Your task to perform on an android device: open app "Spotify" (install if not already installed) Image 0: 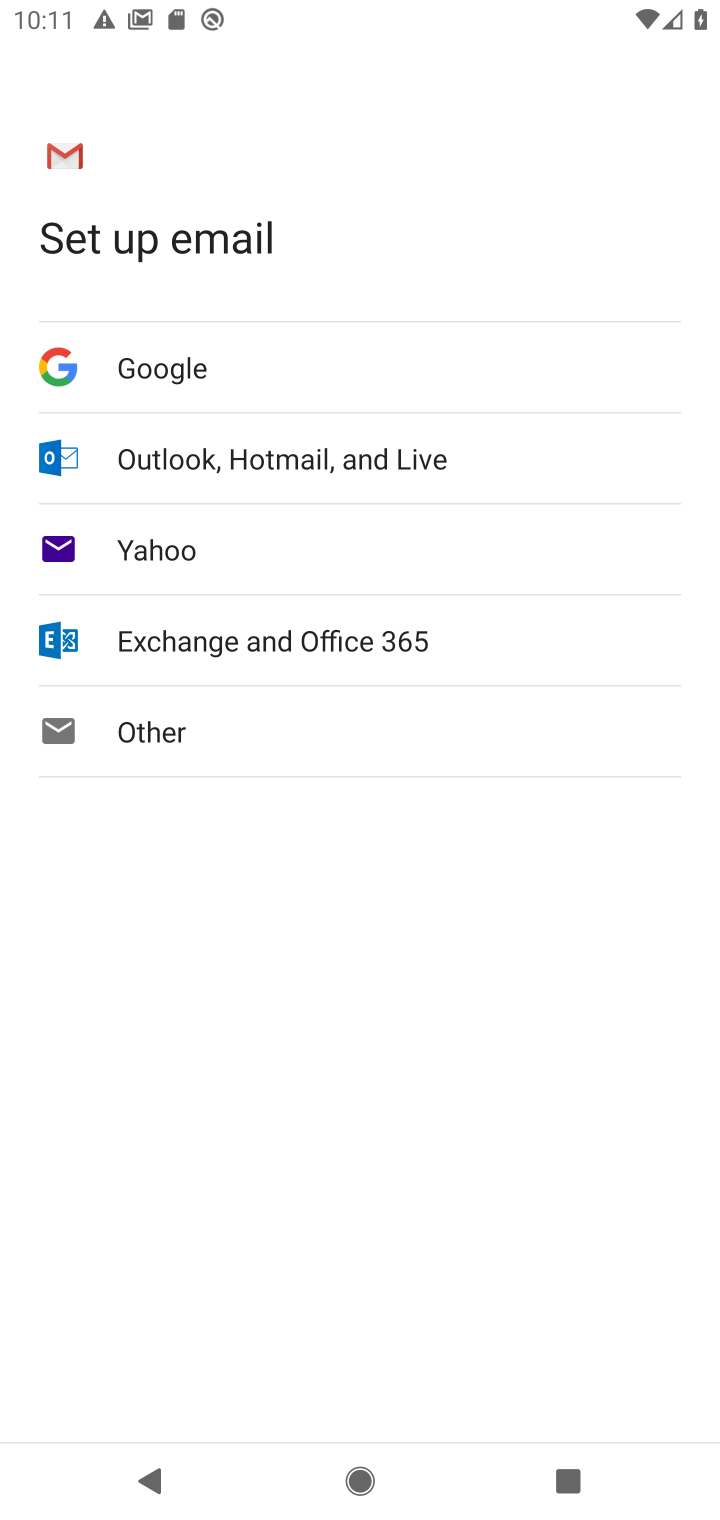
Step 0: press home button
Your task to perform on an android device: open app "Spotify" (install if not already installed) Image 1: 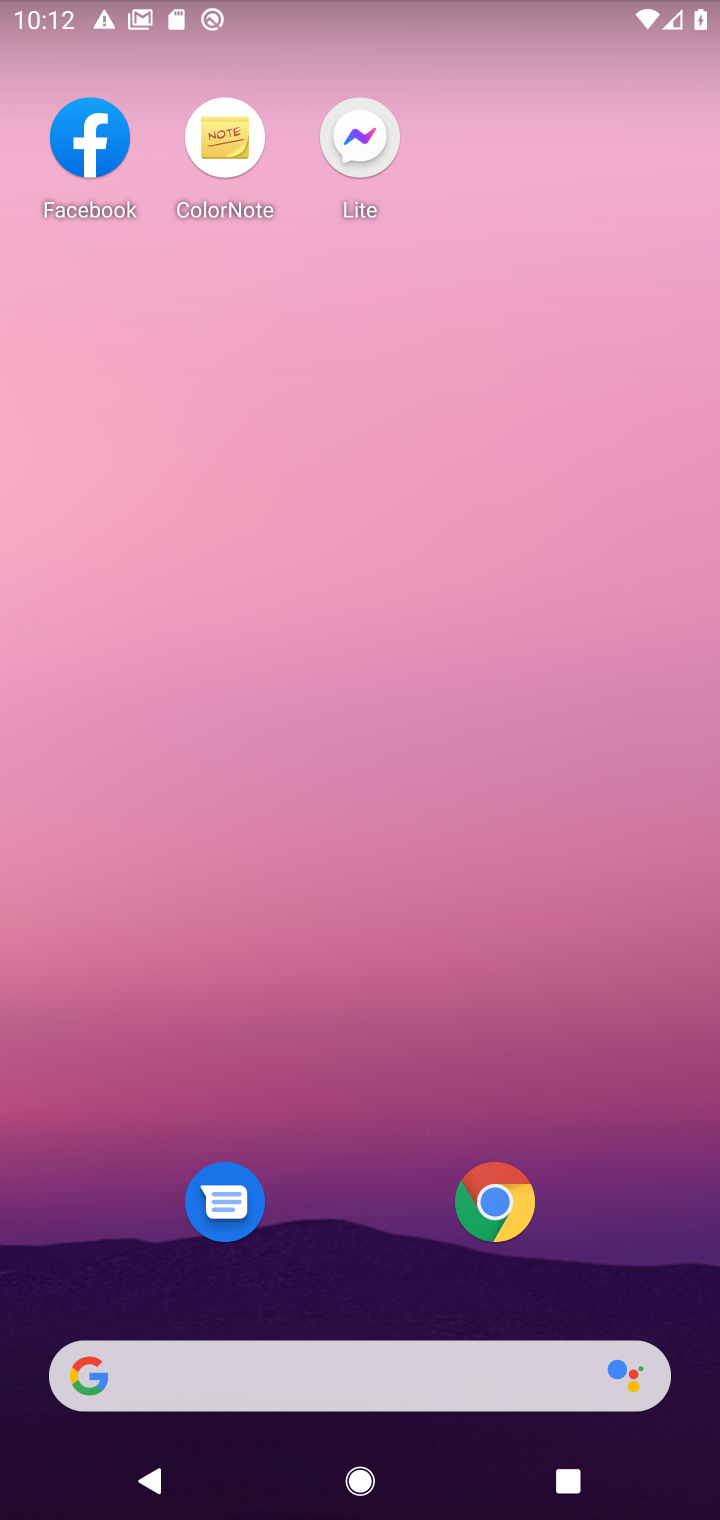
Step 1: drag from (380, 1344) to (392, 432)
Your task to perform on an android device: open app "Spotify" (install if not already installed) Image 2: 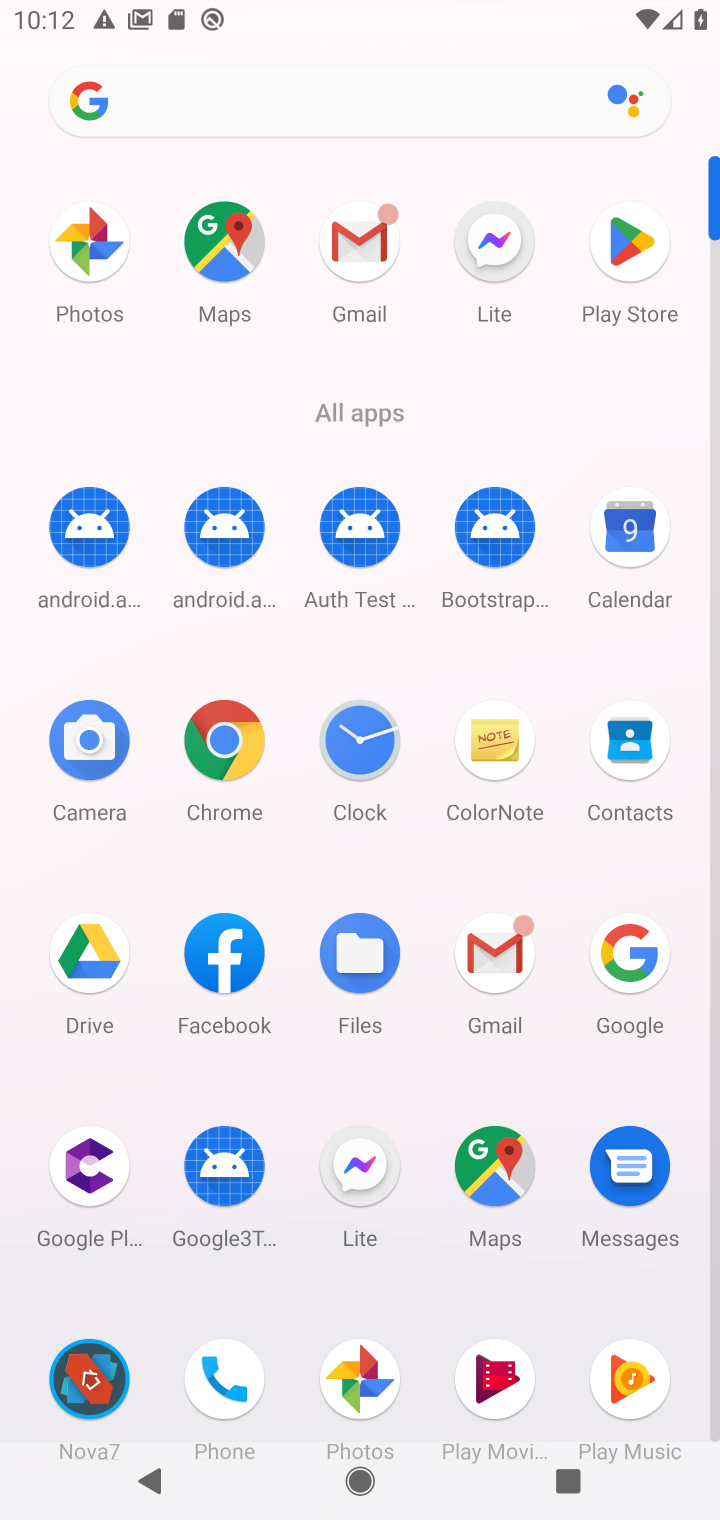
Step 2: click (600, 257)
Your task to perform on an android device: open app "Spotify" (install if not already installed) Image 3: 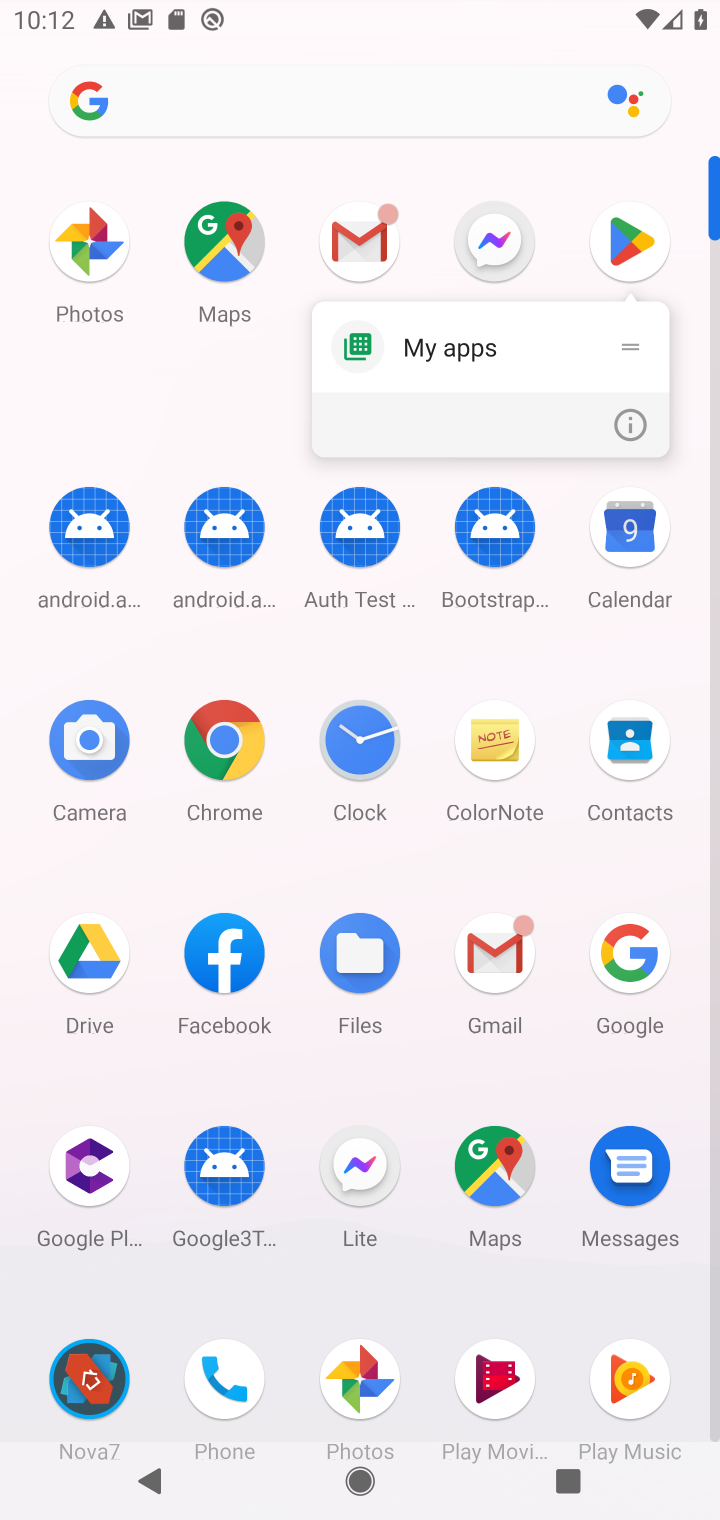
Step 3: click (600, 257)
Your task to perform on an android device: open app "Spotify" (install if not already installed) Image 4: 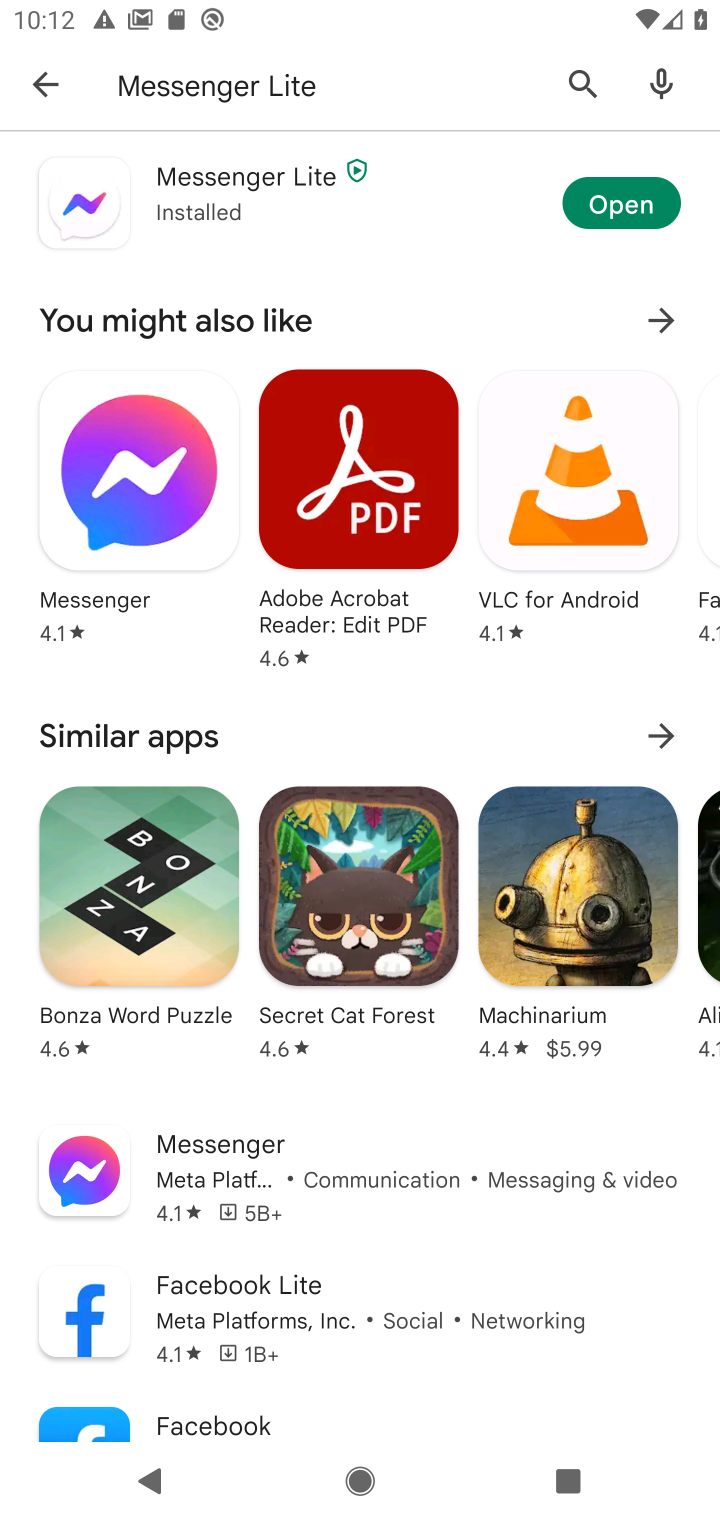
Step 4: click (590, 72)
Your task to perform on an android device: open app "Spotify" (install if not already installed) Image 5: 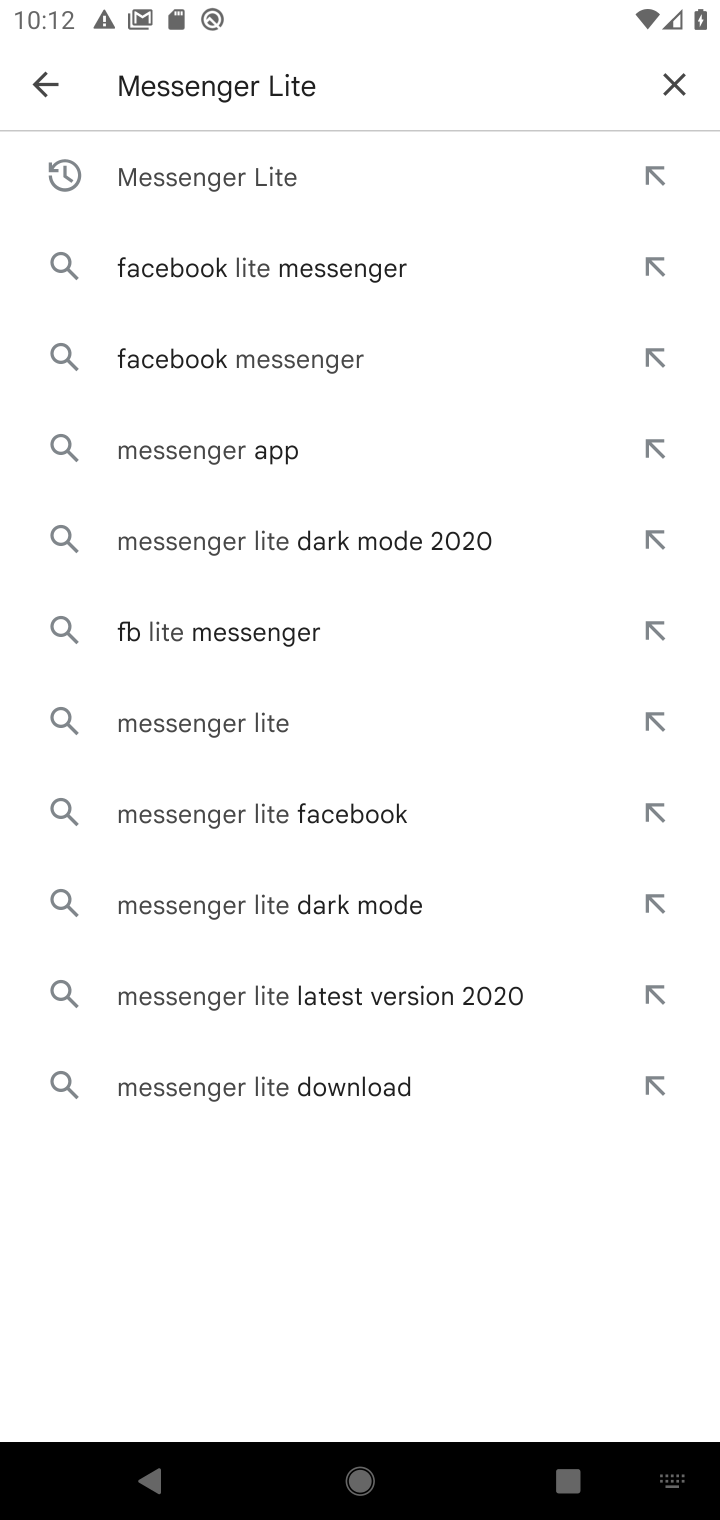
Step 5: click (685, 85)
Your task to perform on an android device: open app "Spotify" (install if not already installed) Image 6: 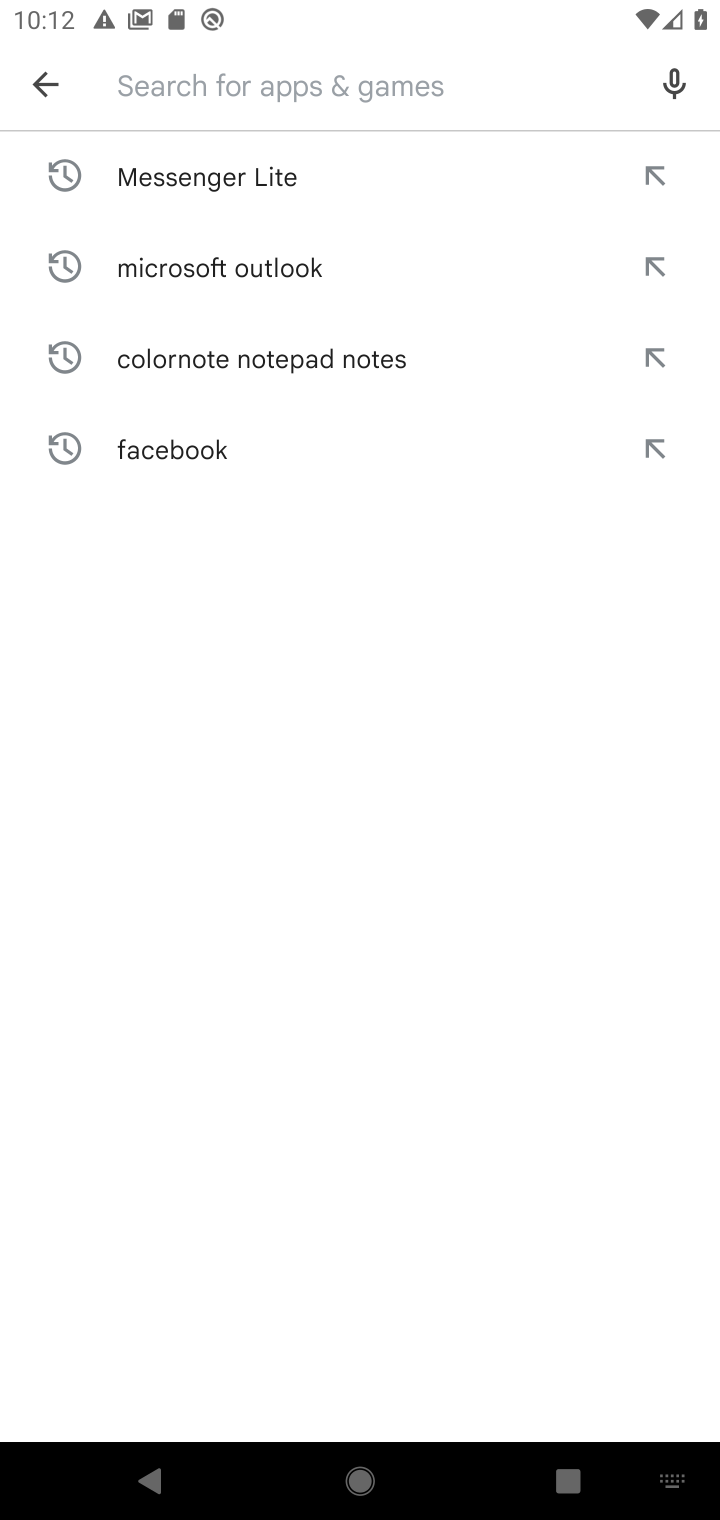
Step 6: type "spotify"
Your task to perform on an android device: open app "Spotify" (install if not already installed) Image 7: 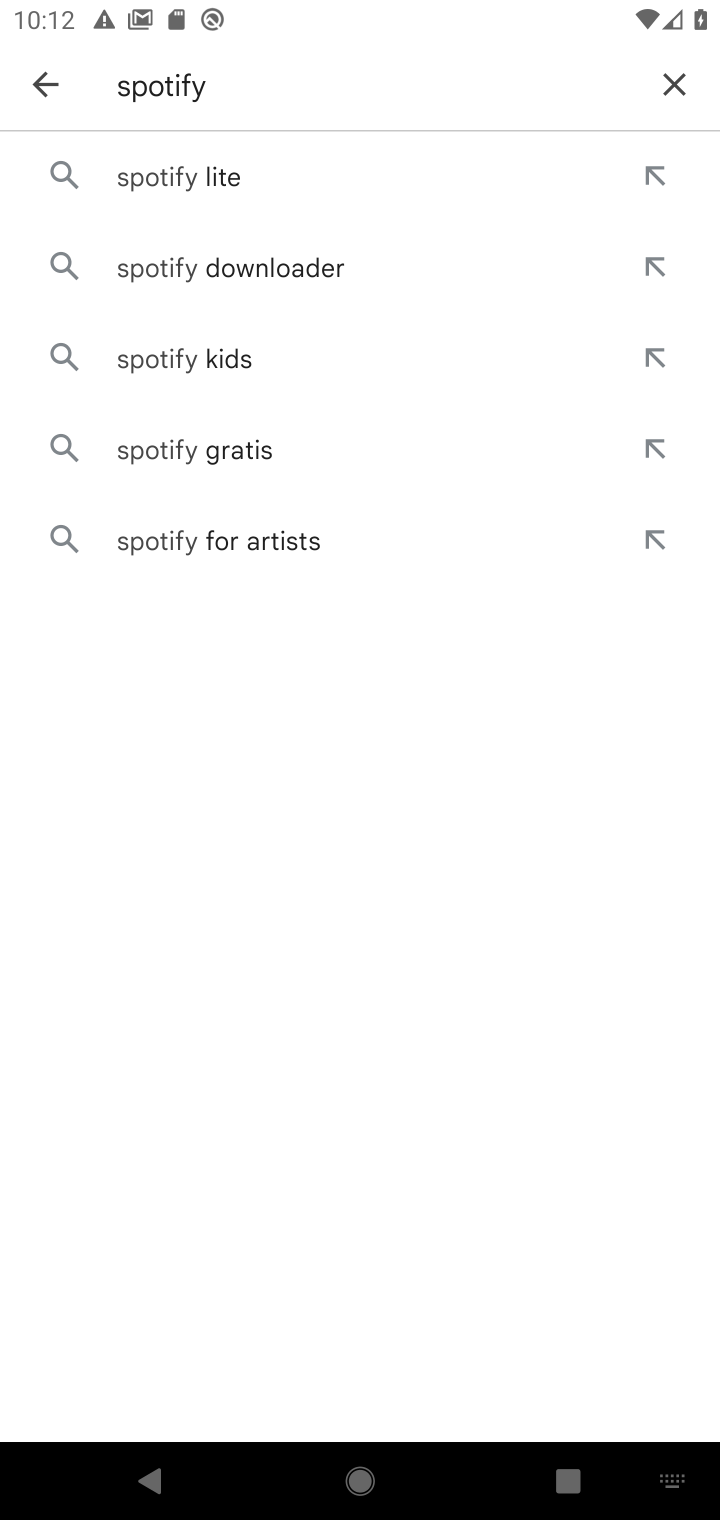
Step 7: press enter
Your task to perform on an android device: open app "Spotify" (install if not already installed) Image 8: 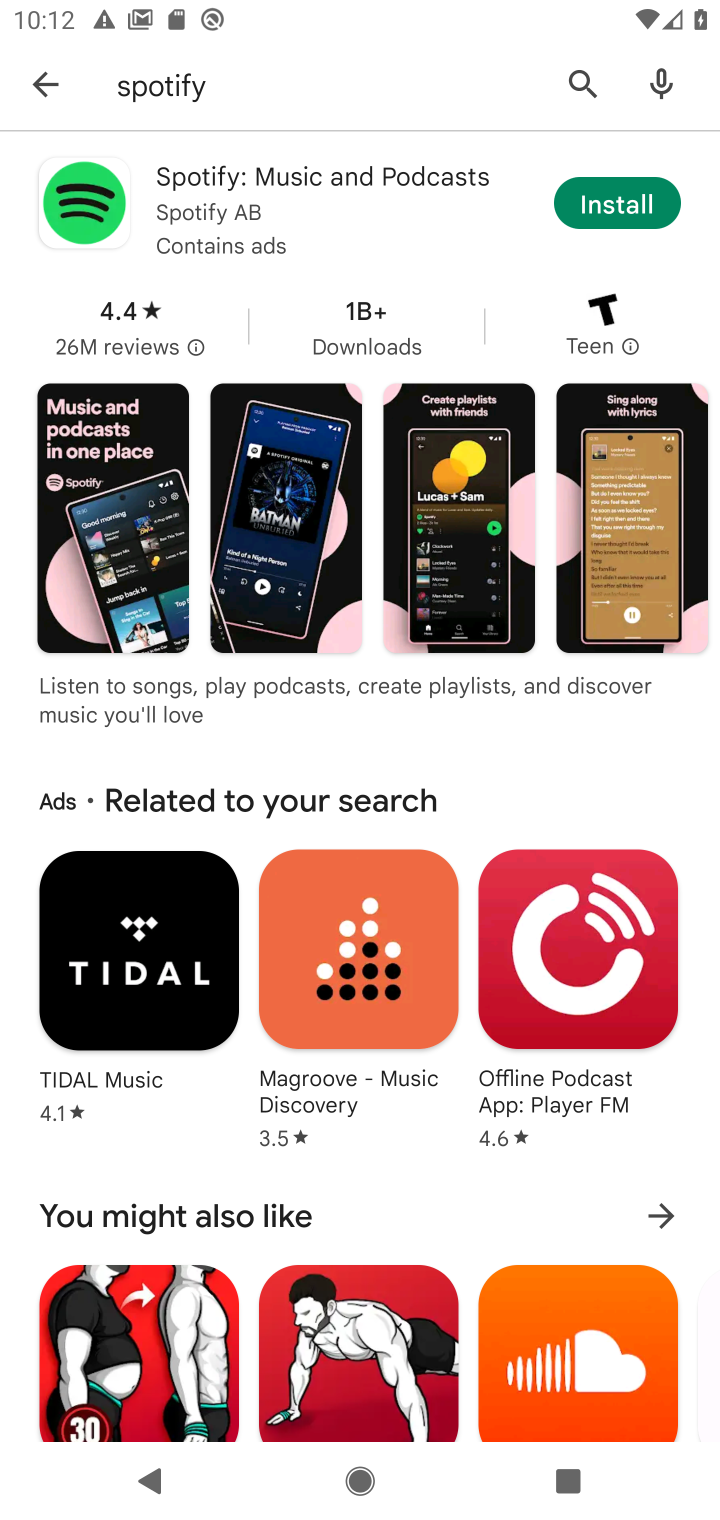
Step 8: click (604, 197)
Your task to perform on an android device: open app "Spotify" (install if not already installed) Image 9: 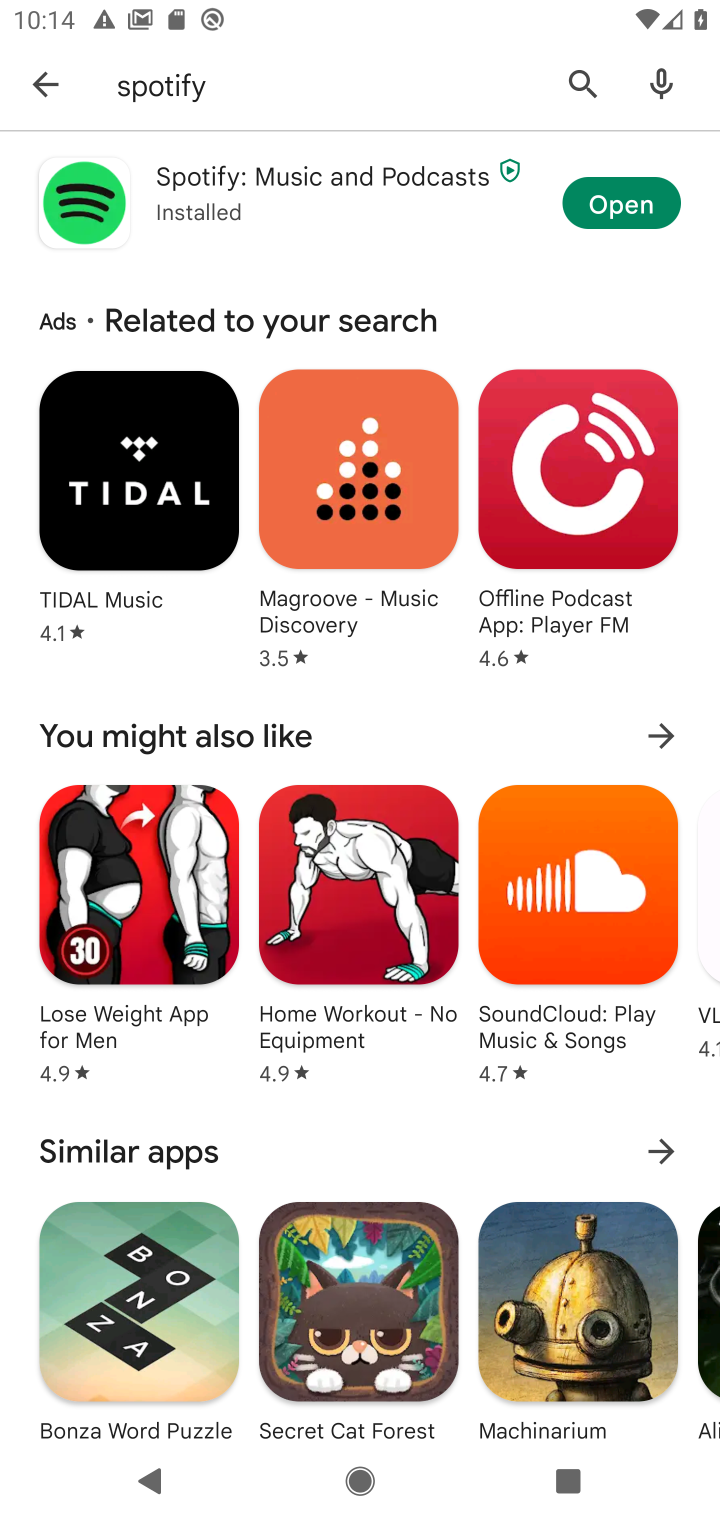
Step 9: click (626, 203)
Your task to perform on an android device: open app "Spotify" (install if not already installed) Image 10: 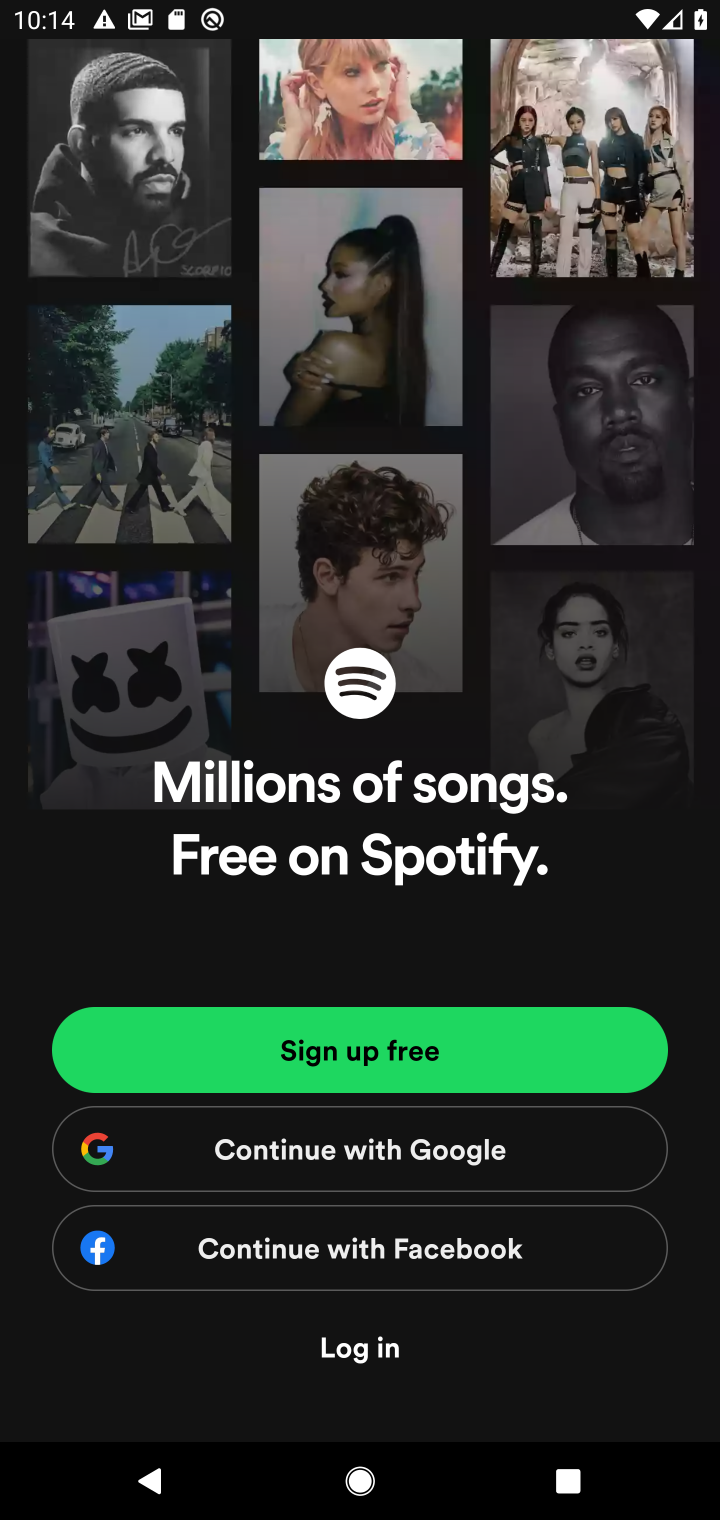
Step 10: task complete